Your task to perform on an android device: Search for razer huntsman on ebay, select the first entry, add it to the cart, then select checkout. Image 0: 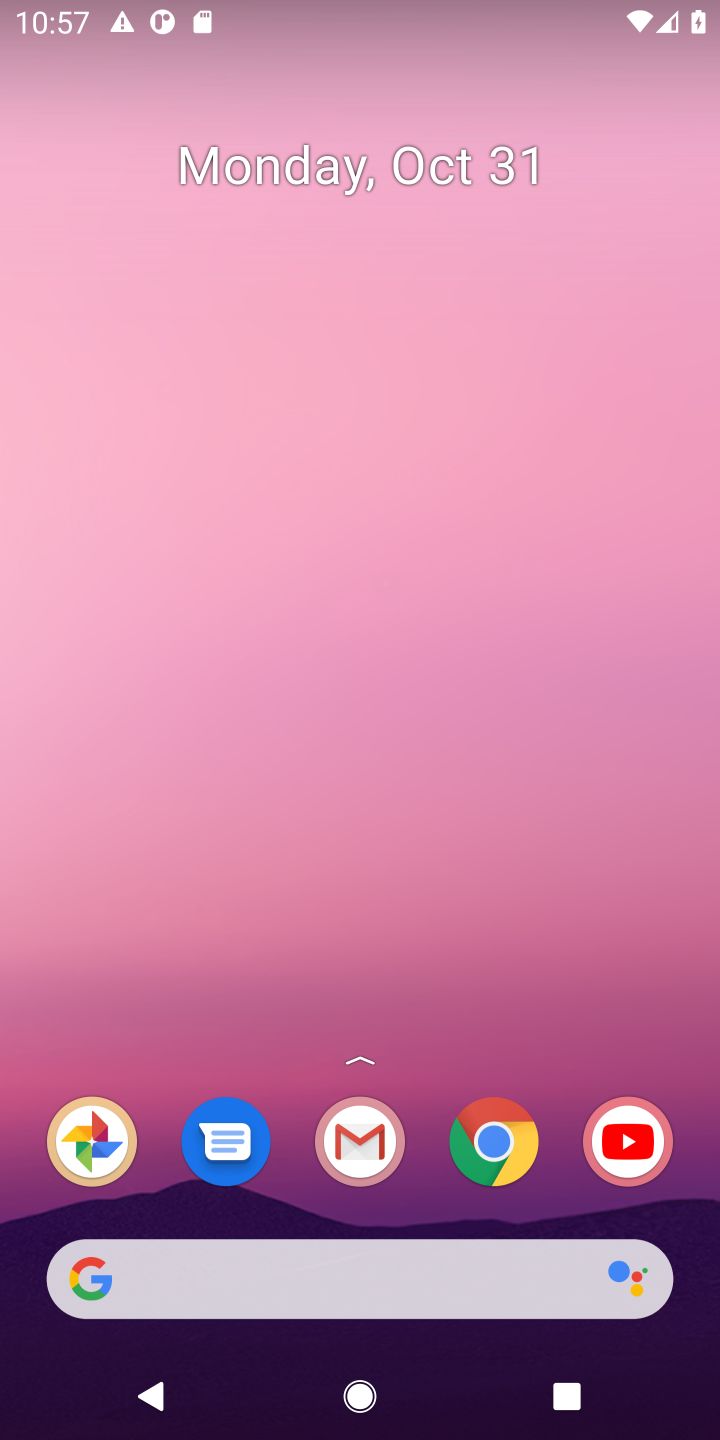
Step 0: press home button
Your task to perform on an android device: Search for razer huntsman on ebay, select the first entry, add it to the cart, then select checkout. Image 1: 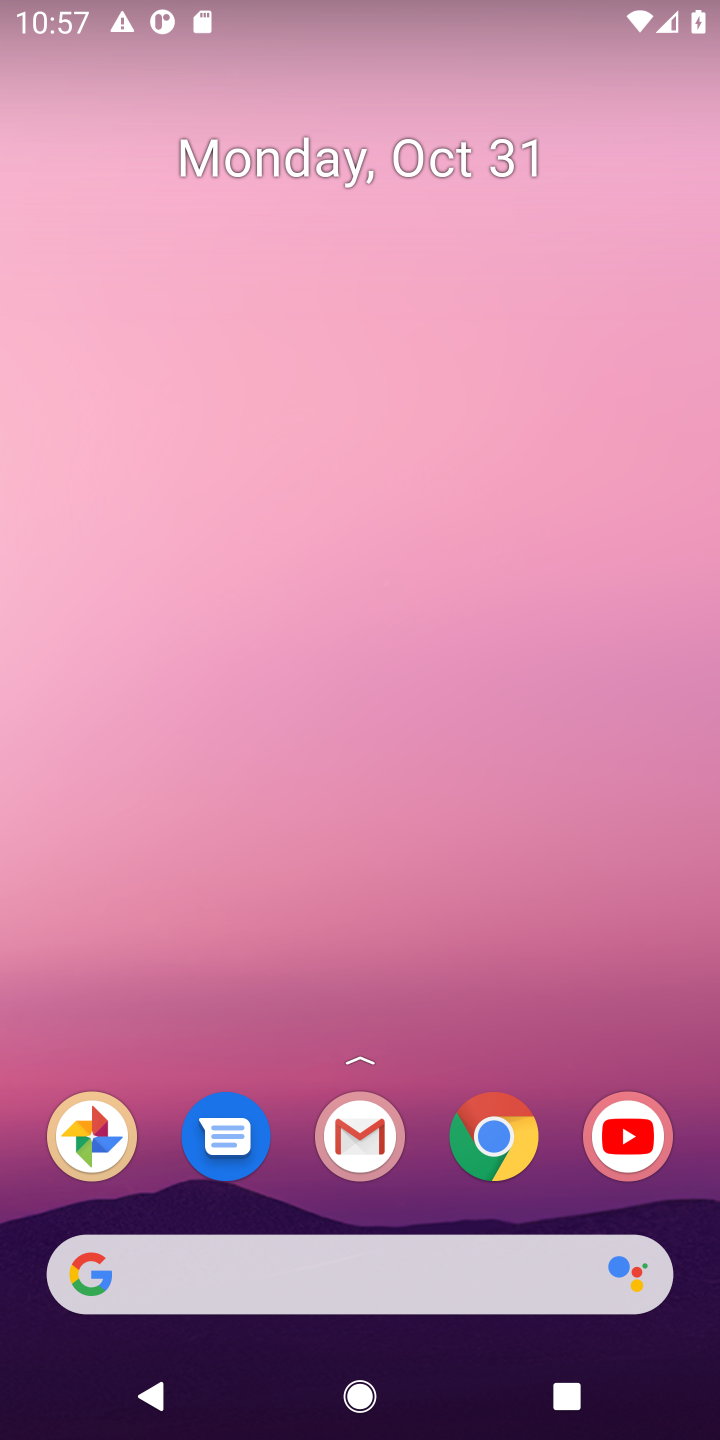
Step 1: click (136, 1287)
Your task to perform on an android device: Search for razer huntsman on ebay, select the first entry, add it to the cart, then select checkout. Image 2: 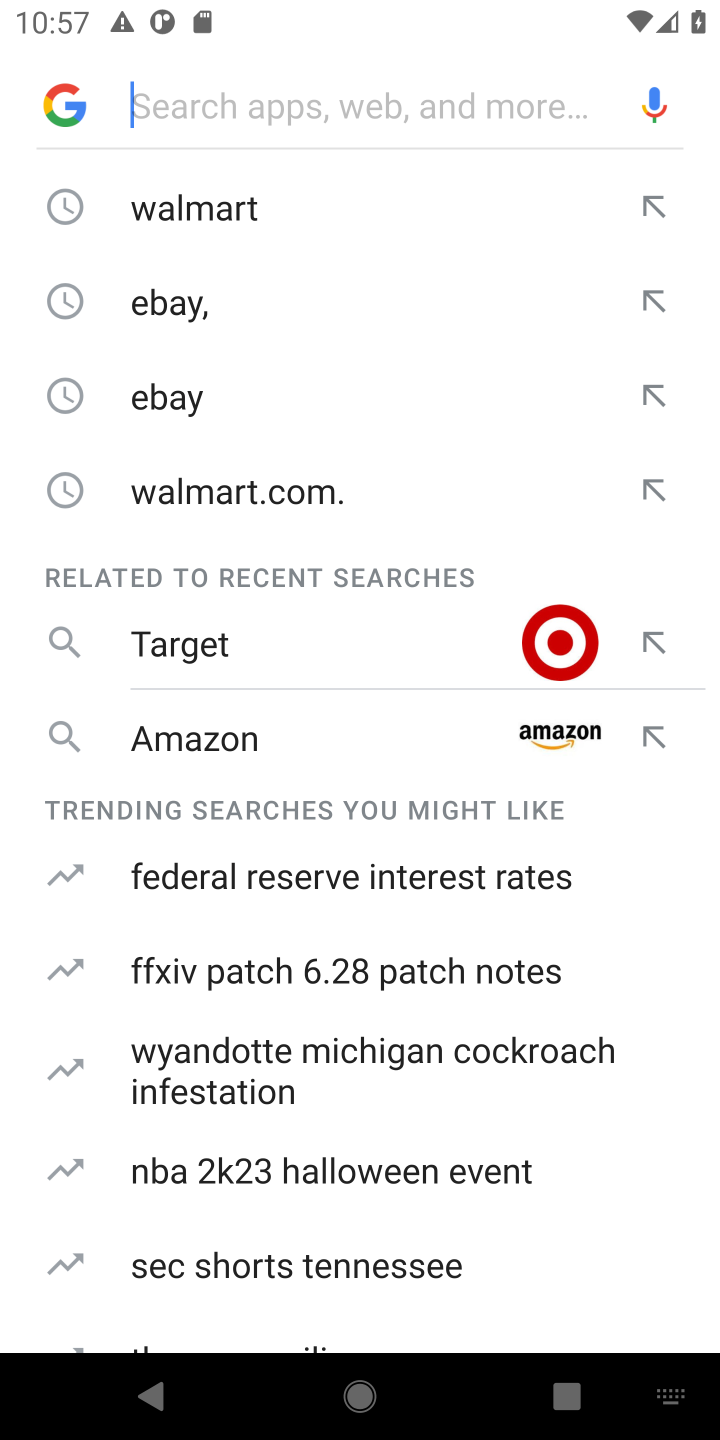
Step 2: type " ebay,"
Your task to perform on an android device: Search for razer huntsman on ebay, select the first entry, add it to the cart, then select checkout. Image 3: 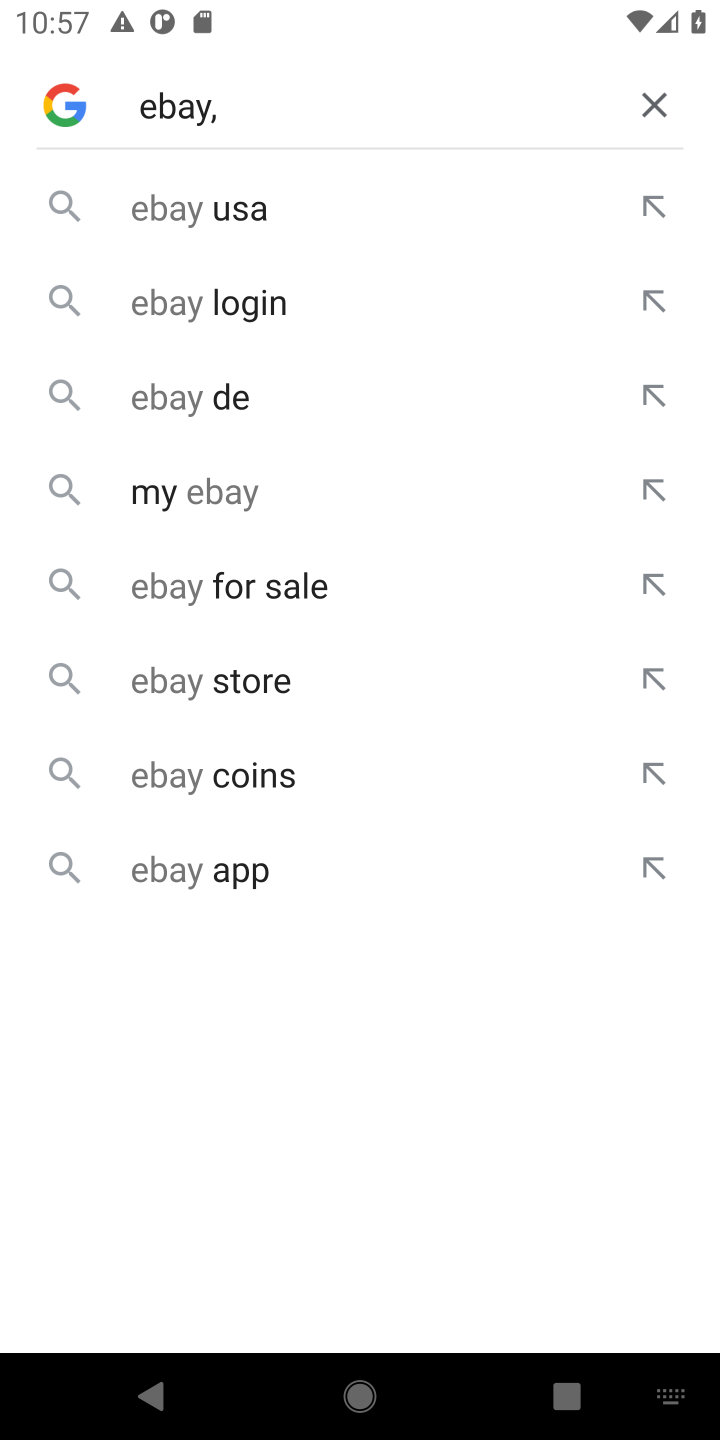
Step 3: press enter
Your task to perform on an android device: Search for razer huntsman on ebay, select the first entry, add it to the cart, then select checkout. Image 4: 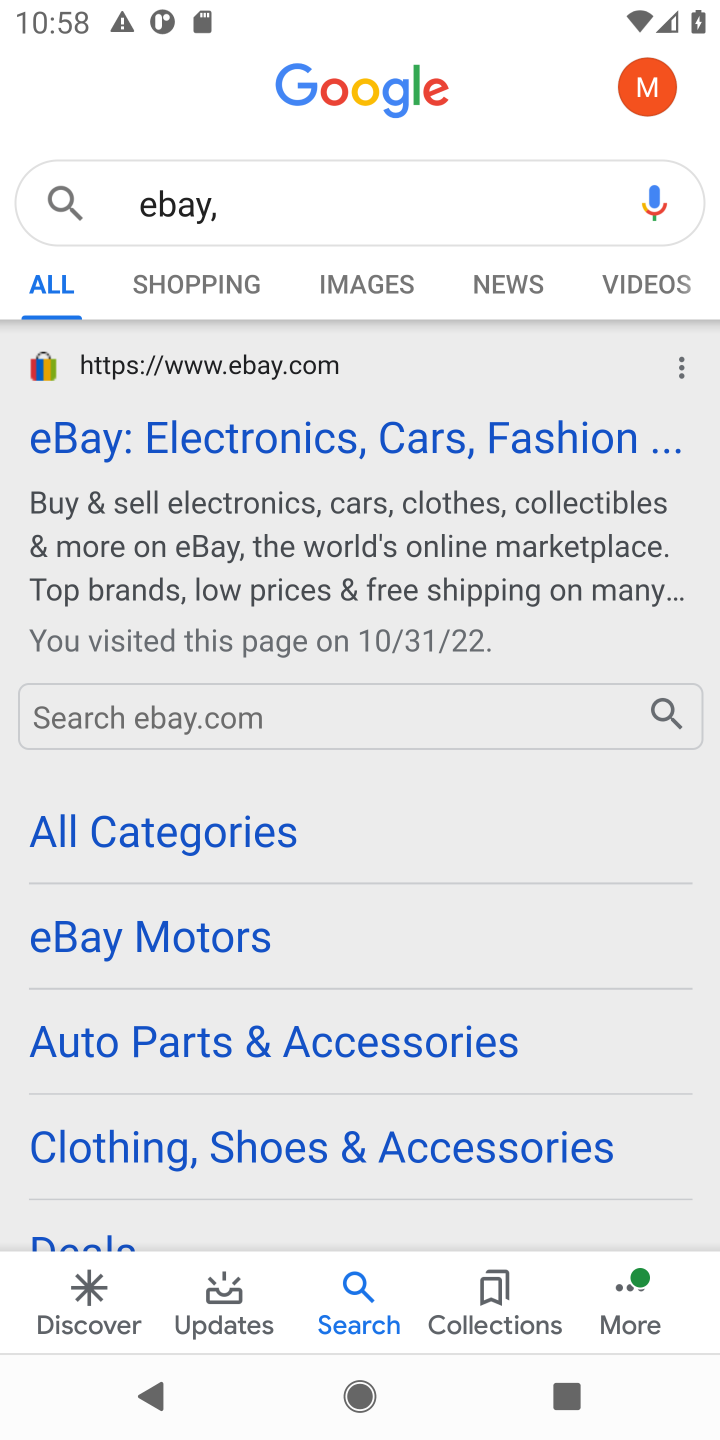
Step 4: click (234, 438)
Your task to perform on an android device: Search for razer huntsman on ebay, select the first entry, add it to the cart, then select checkout. Image 5: 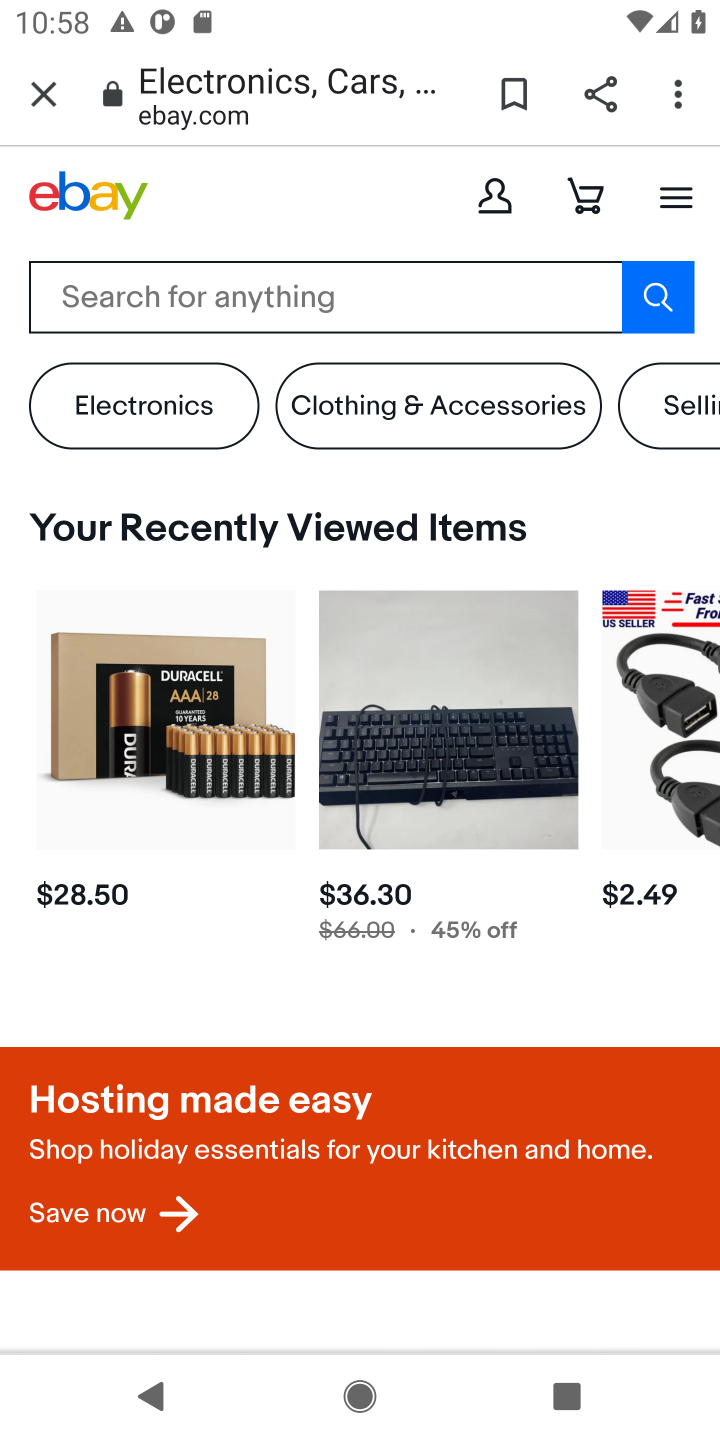
Step 5: click (112, 290)
Your task to perform on an android device: Search for razer huntsman on ebay, select the first entry, add it to the cart, then select checkout. Image 6: 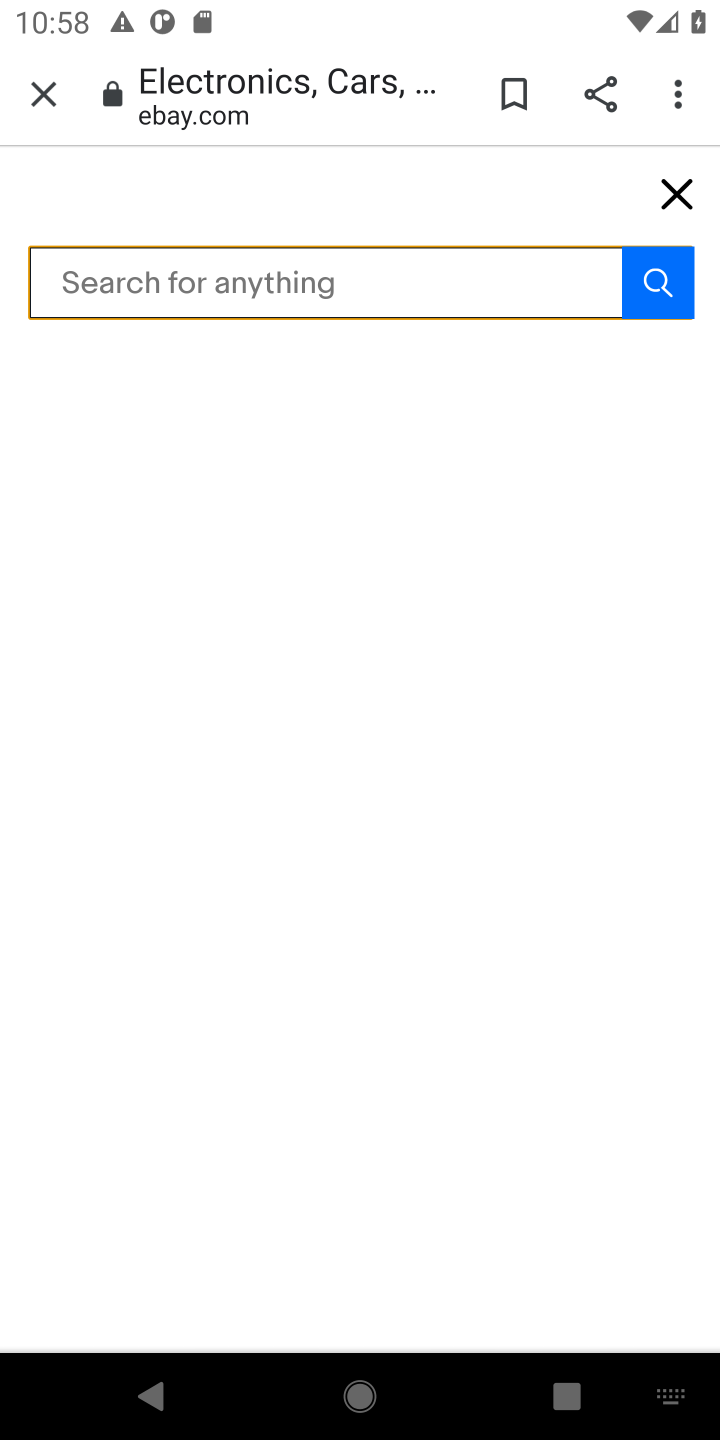
Step 6: type "razer huntsman"
Your task to perform on an android device: Search for razer huntsman on ebay, select the first entry, add it to the cart, then select checkout. Image 7: 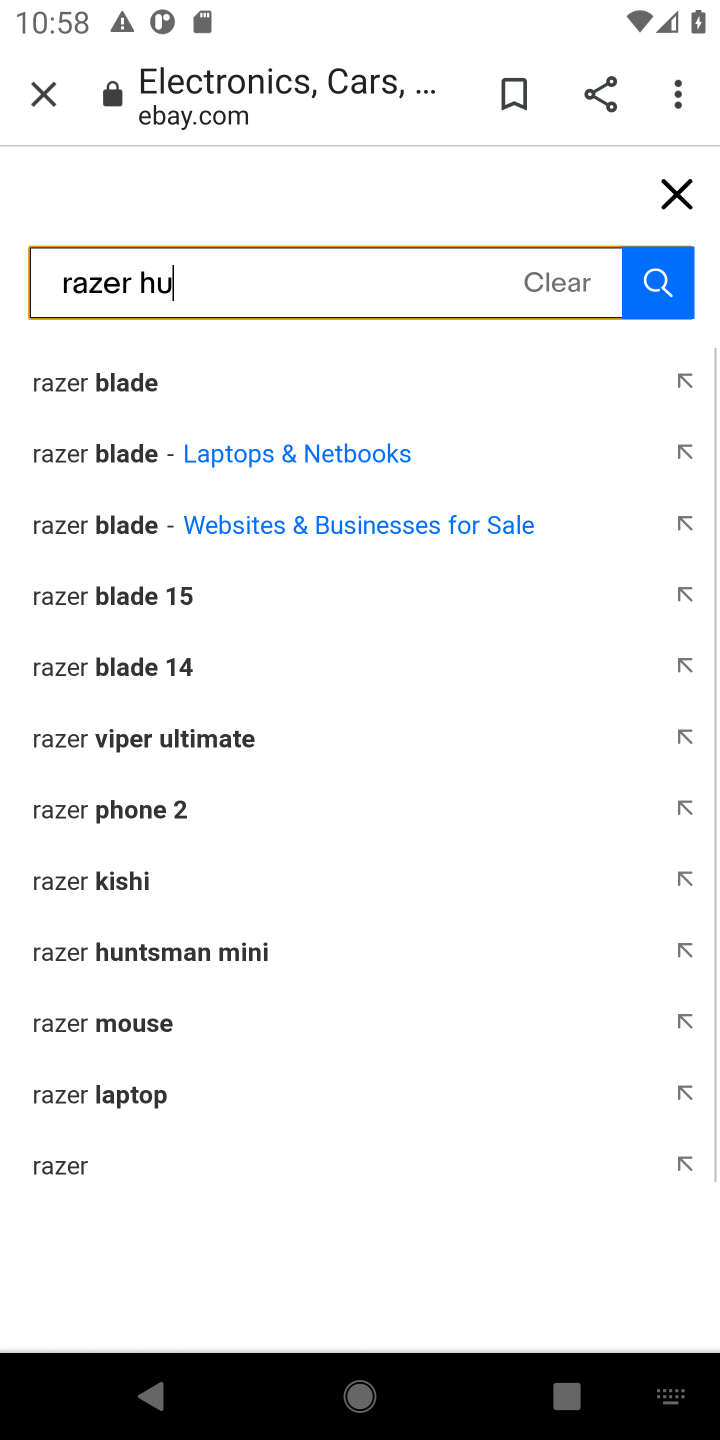
Step 7: press enter
Your task to perform on an android device: Search for razer huntsman on ebay, select the first entry, add it to the cart, then select checkout. Image 8: 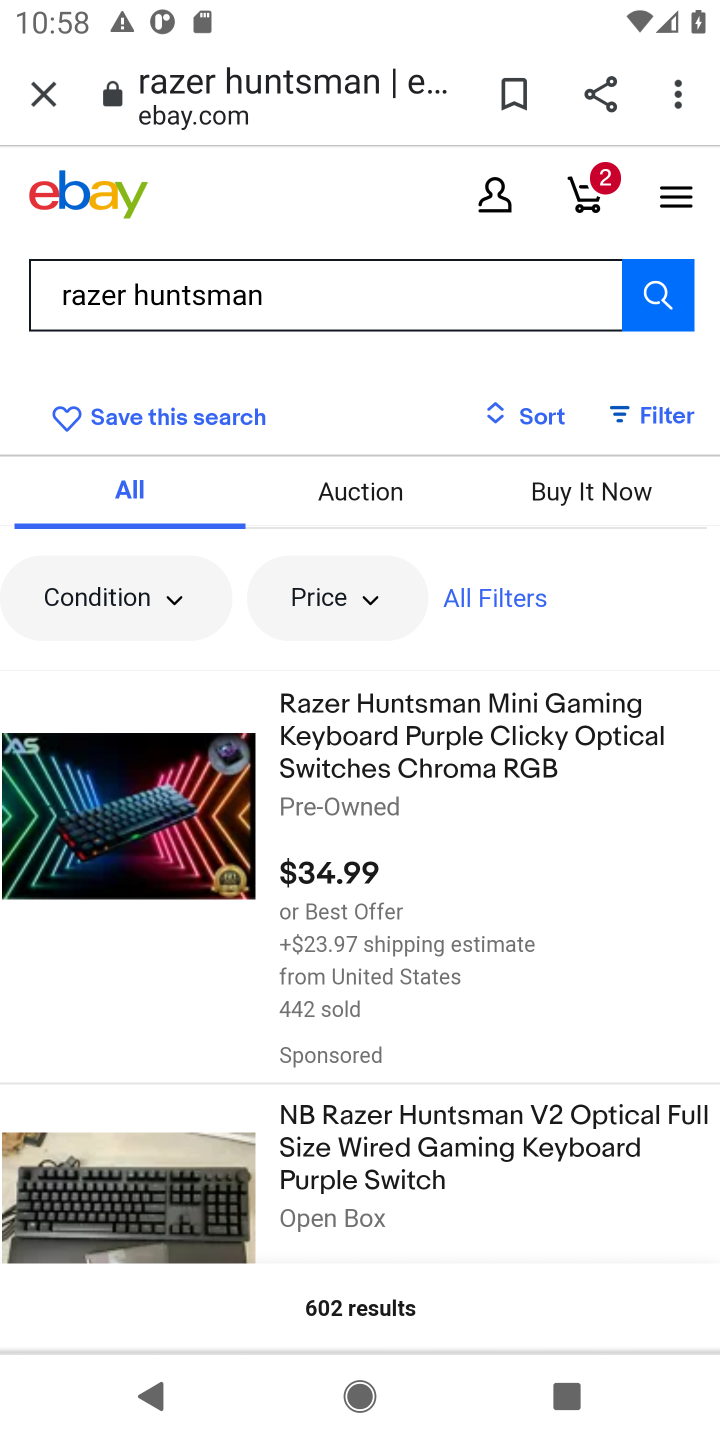
Step 8: click (418, 732)
Your task to perform on an android device: Search for razer huntsman on ebay, select the first entry, add it to the cart, then select checkout. Image 9: 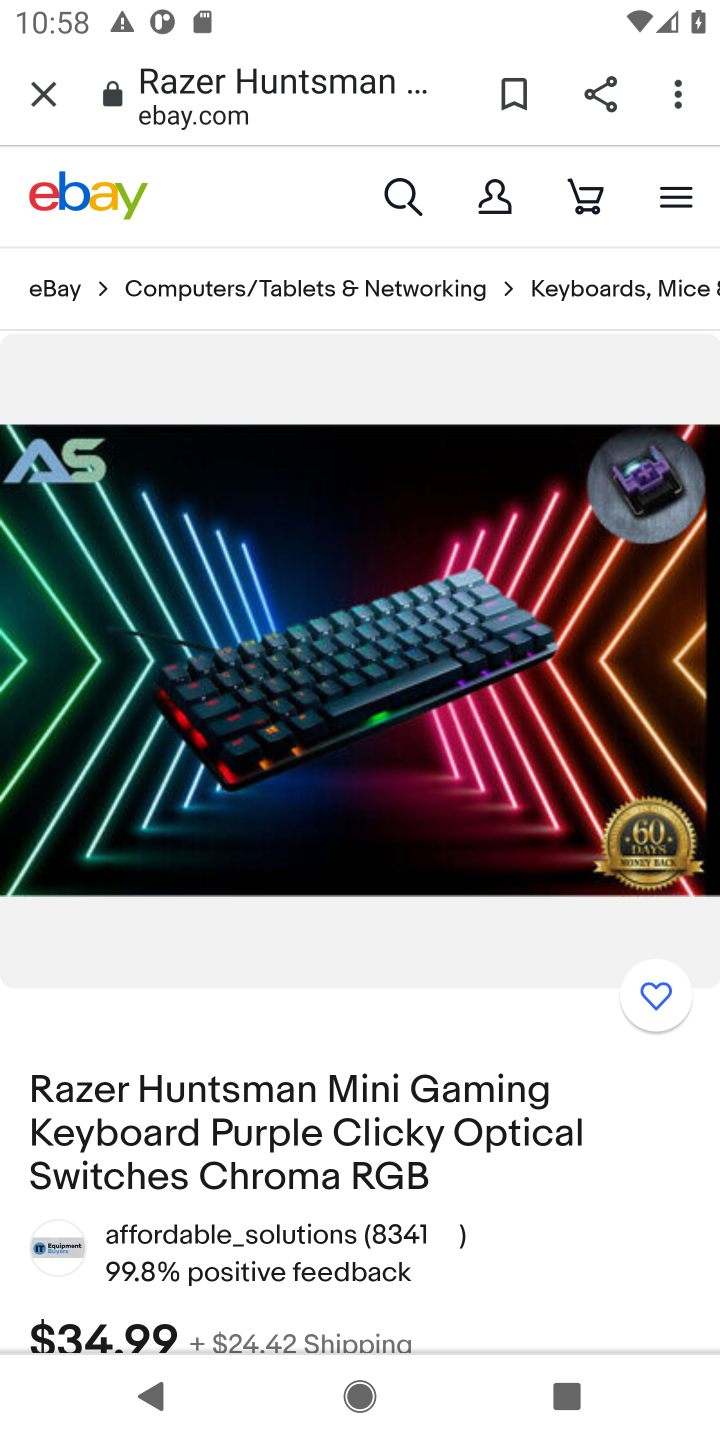
Step 9: drag from (379, 1185) to (407, 469)
Your task to perform on an android device: Search for razer huntsman on ebay, select the first entry, add it to the cart, then select checkout. Image 10: 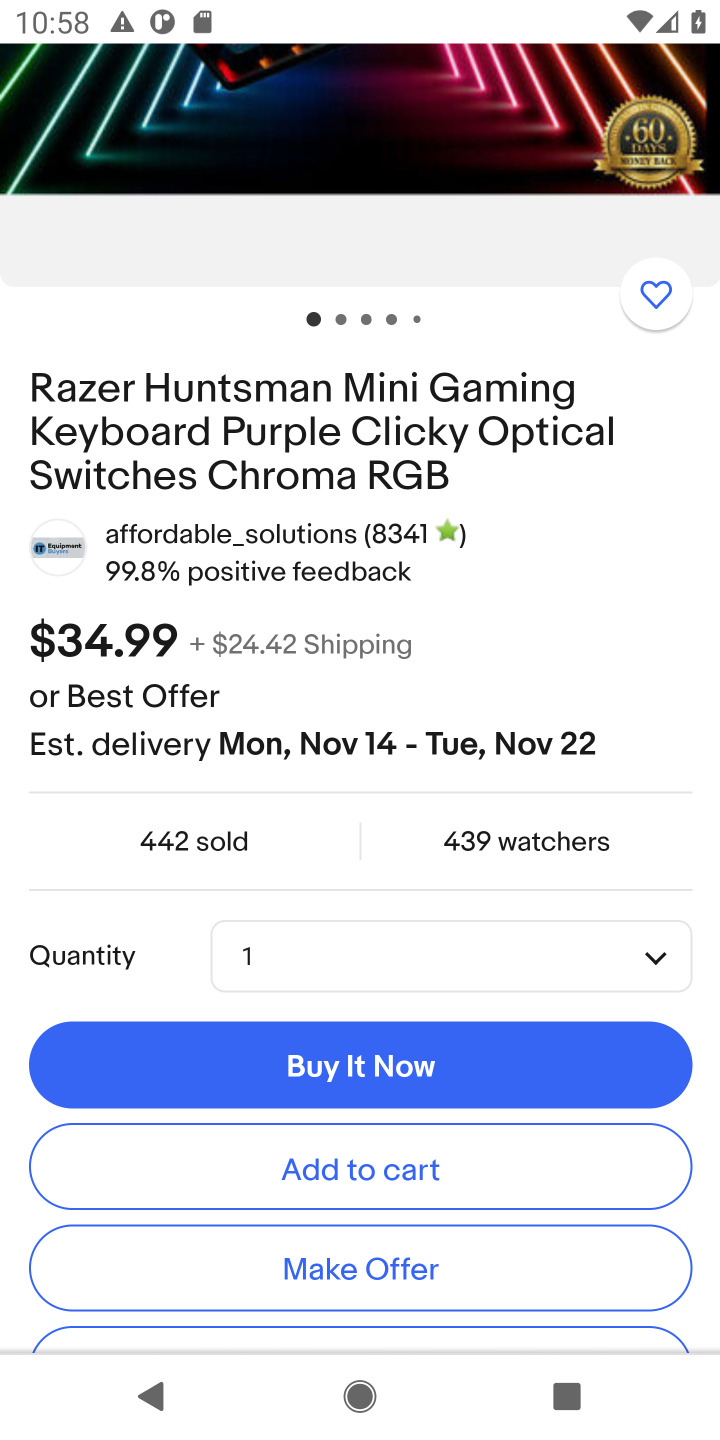
Step 10: drag from (482, 1001) to (504, 413)
Your task to perform on an android device: Search for razer huntsman on ebay, select the first entry, add it to the cart, then select checkout. Image 11: 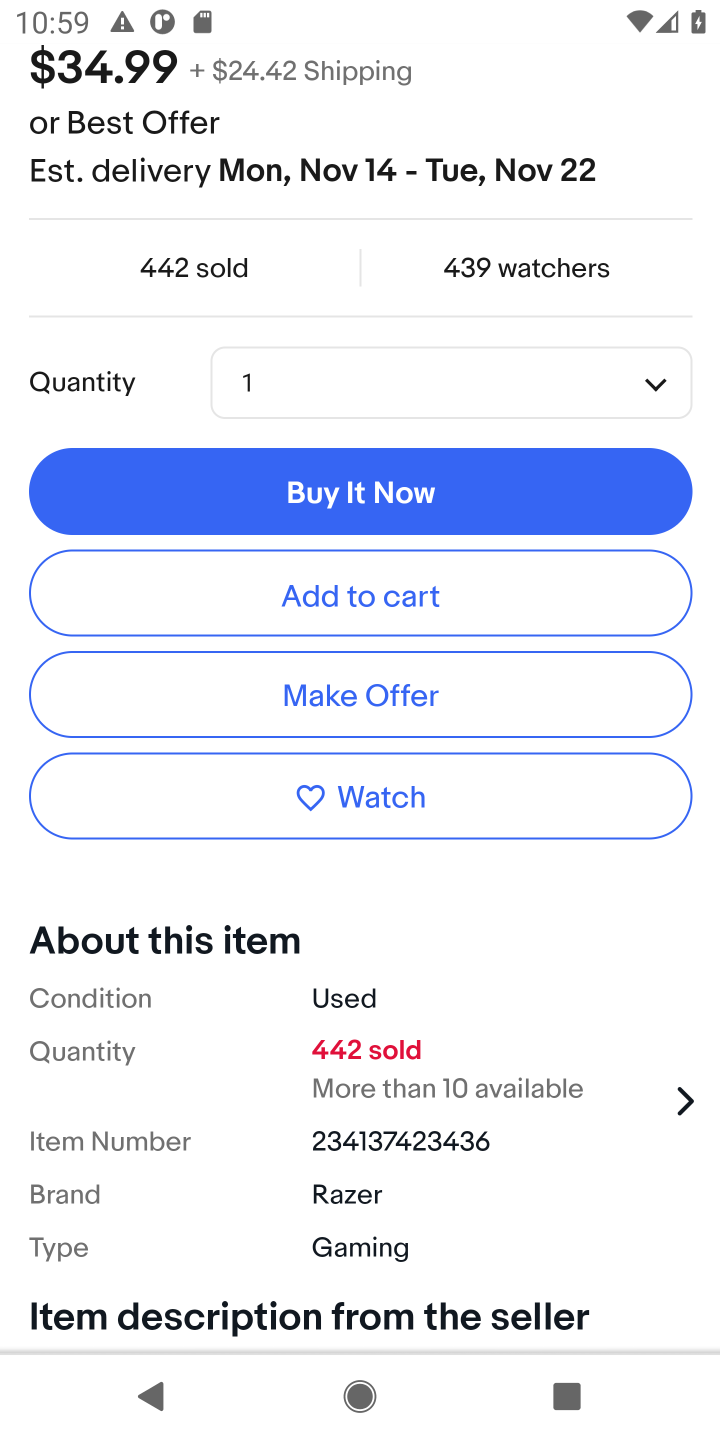
Step 11: click (314, 593)
Your task to perform on an android device: Search for razer huntsman on ebay, select the first entry, add it to the cart, then select checkout. Image 12: 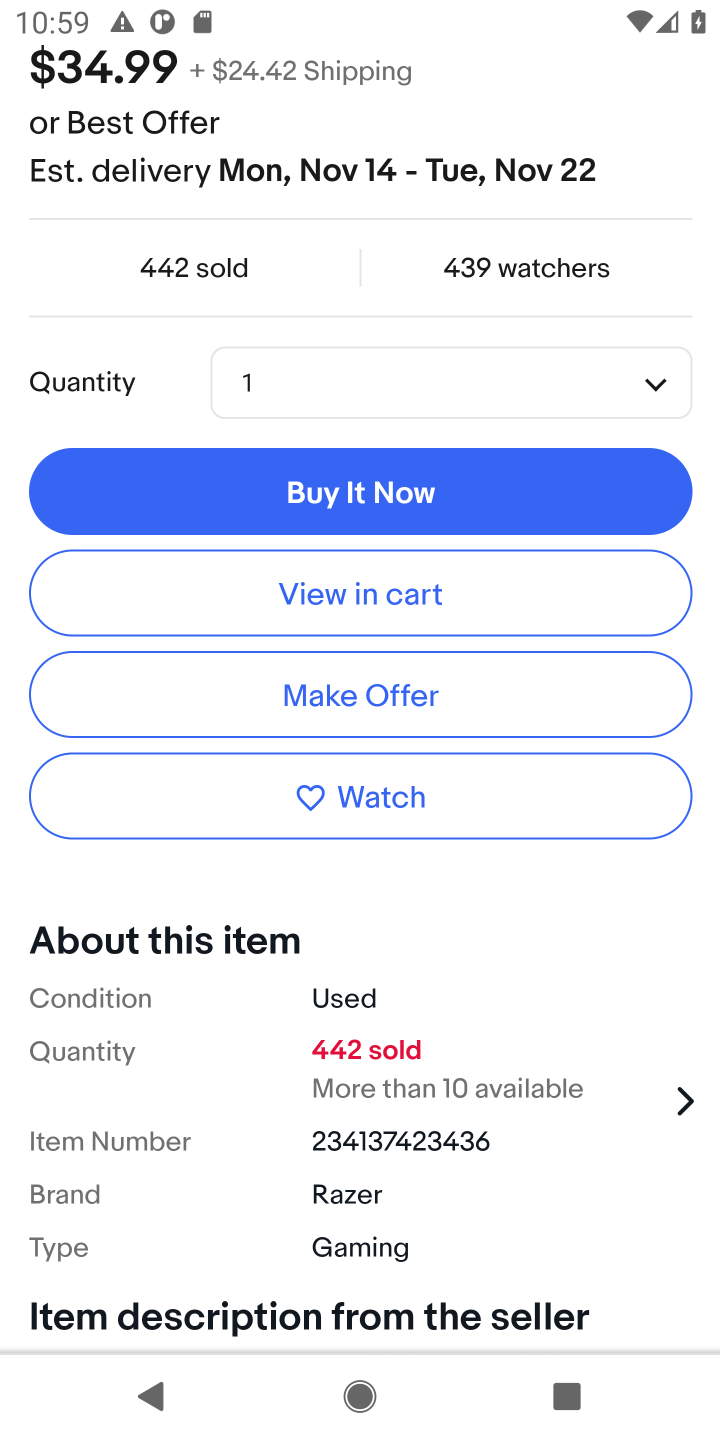
Step 12: click (314, 593)
Your task to perform on an android device: Search for razer huntsman on ebay, select the first entry, add it to the cart, then select checkout. Image 13: 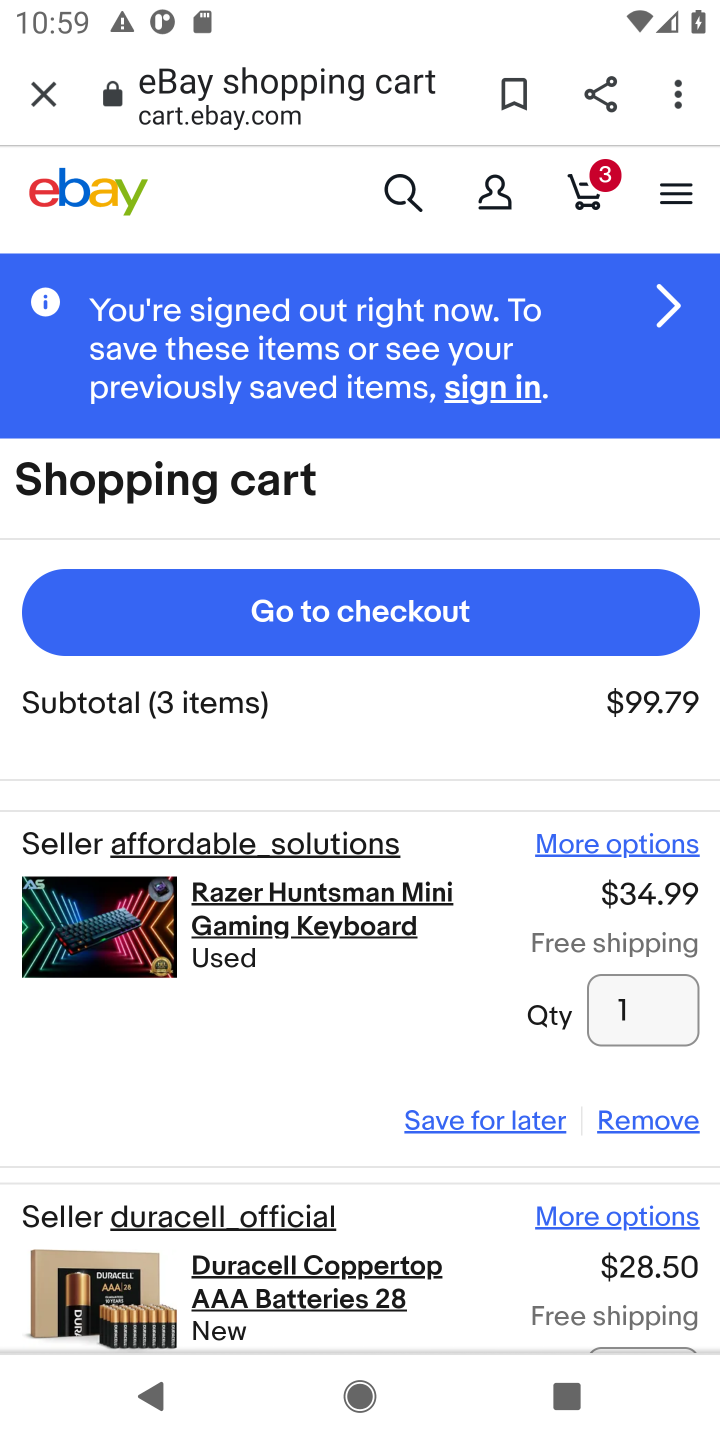
Step 13: click (406, 606)
Your task to perform on an android device: Search for razer huntsman on ebay, select the first entry, add it to the cart, then select checkout. Image 14: 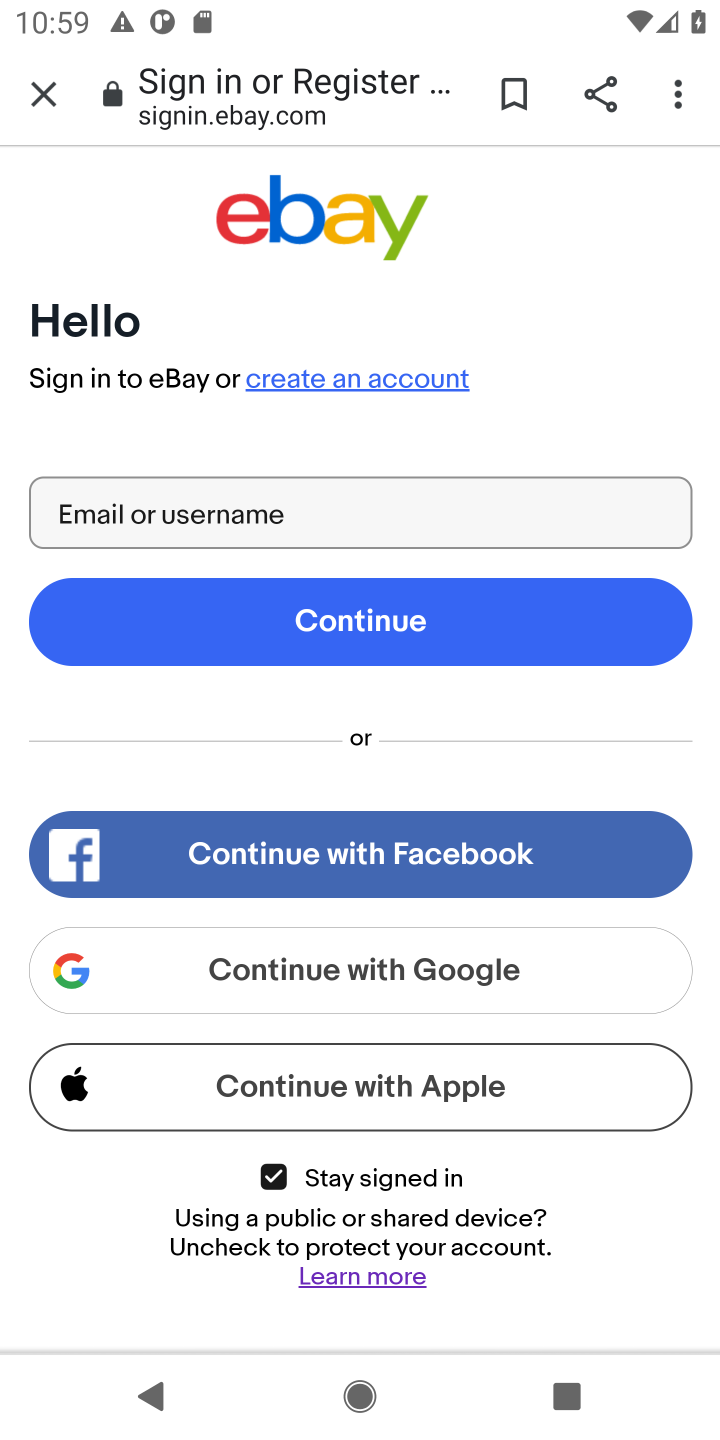
Step 14: task complete